Your task to perform on an android device: Search for "corsair k70" on bestbuy, select the first entry, add it to the cart, then select checkout. Image 0: 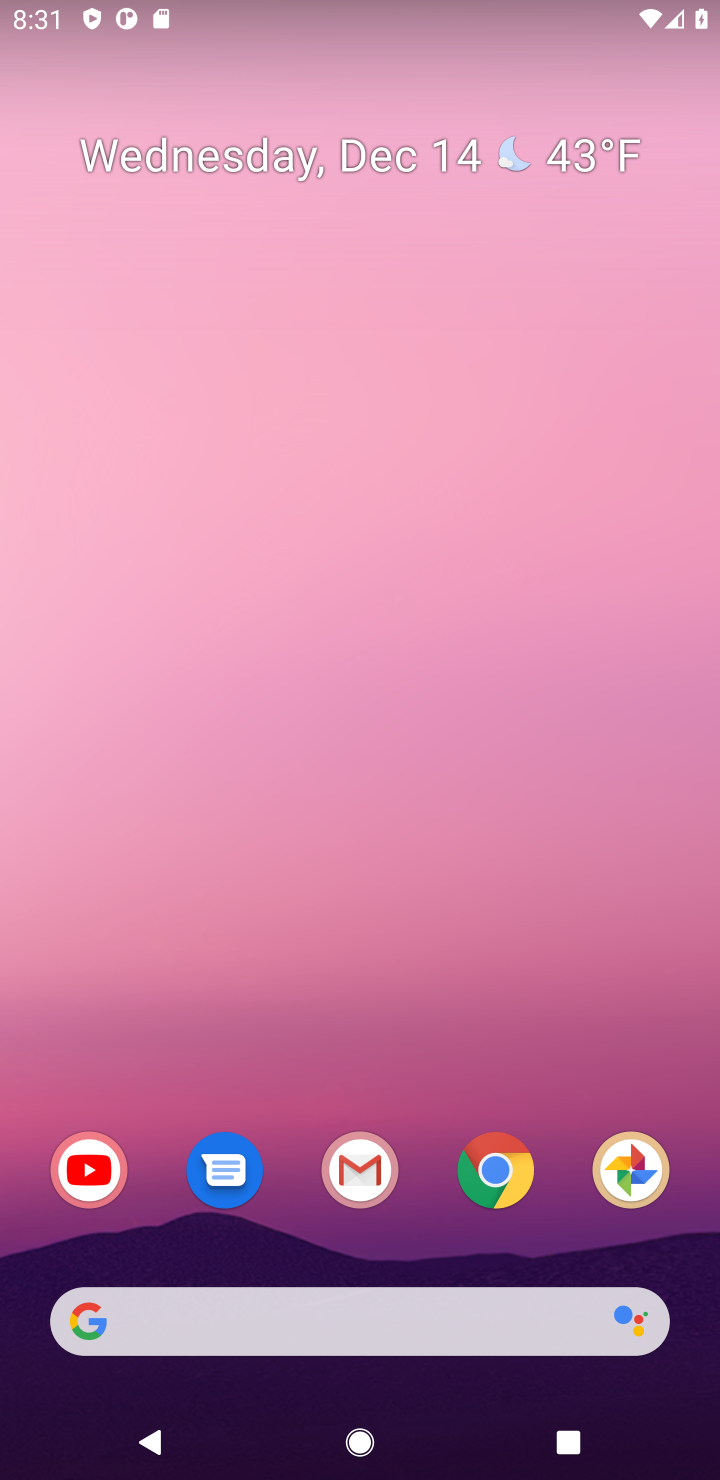
Step 0: click (493, 1185)
Your task to perform on an android device: Search for "corsair k70" on bestbuy, select the first entry, add it to the cart, then select checkout. Image 1: 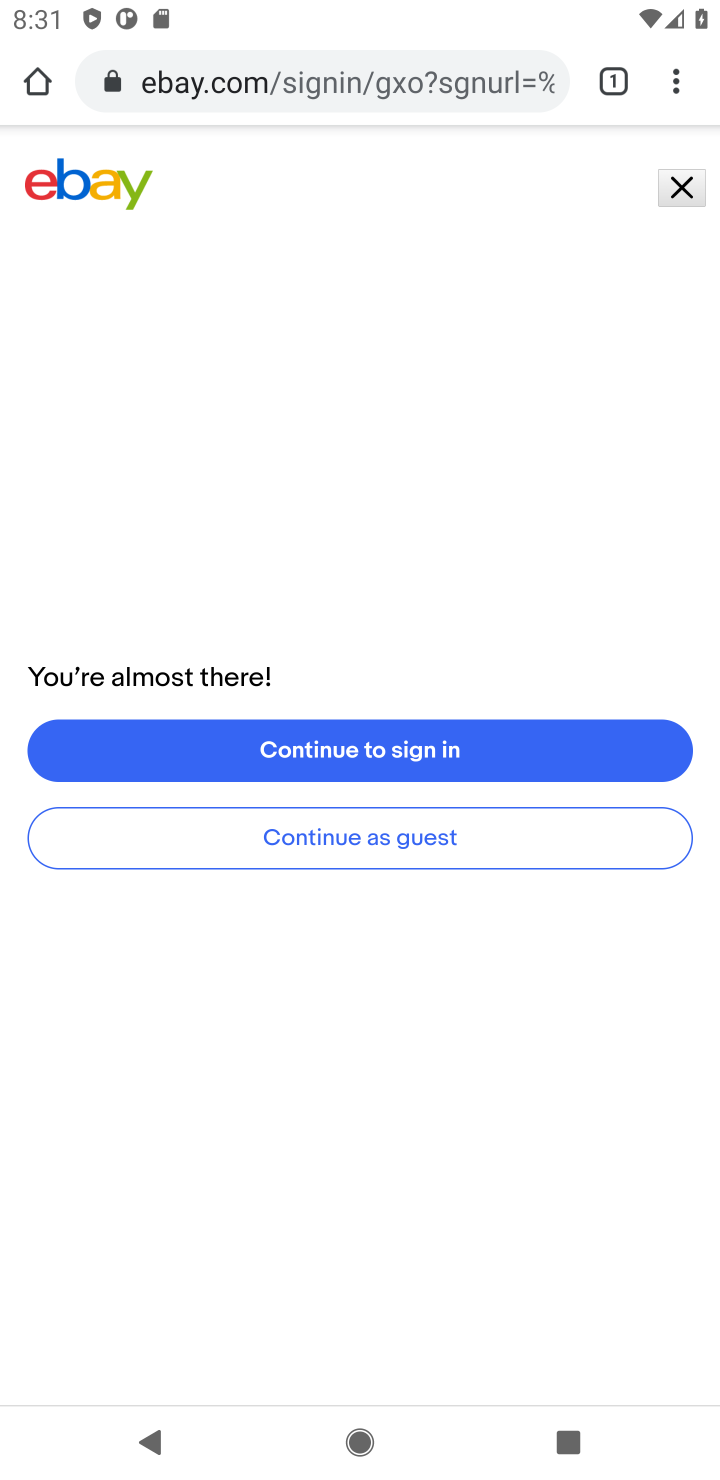
Step 1: click (384, 74)
Your task to perform on an android device: Search for "corsair k70" on bestbuy, select the first entry, add it to the cart, then select checkout. Image 2: 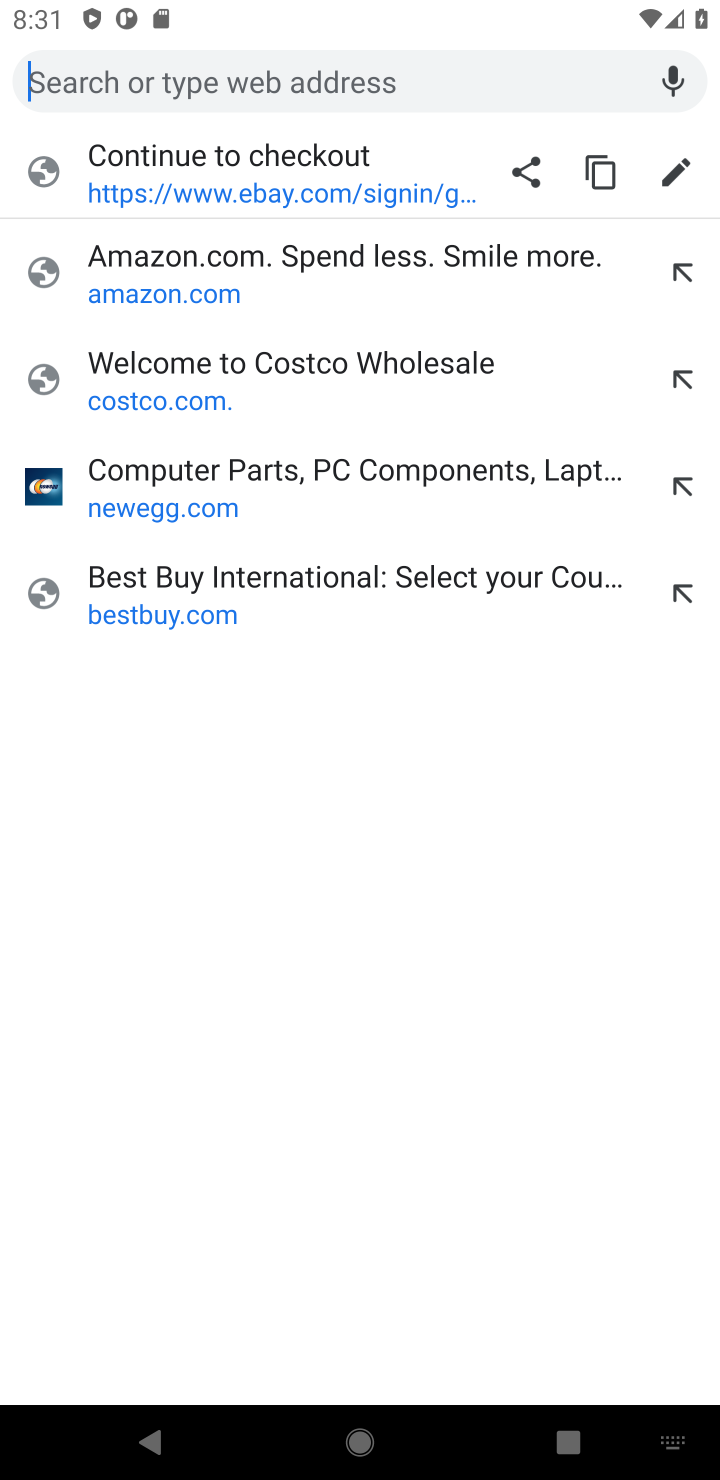
Step 2: click (193, 606)
Your task to perform on an android device: Search for "corsair k70" on bestbuy, select the first entry, add it to the cart, then select checkout. Image 3: 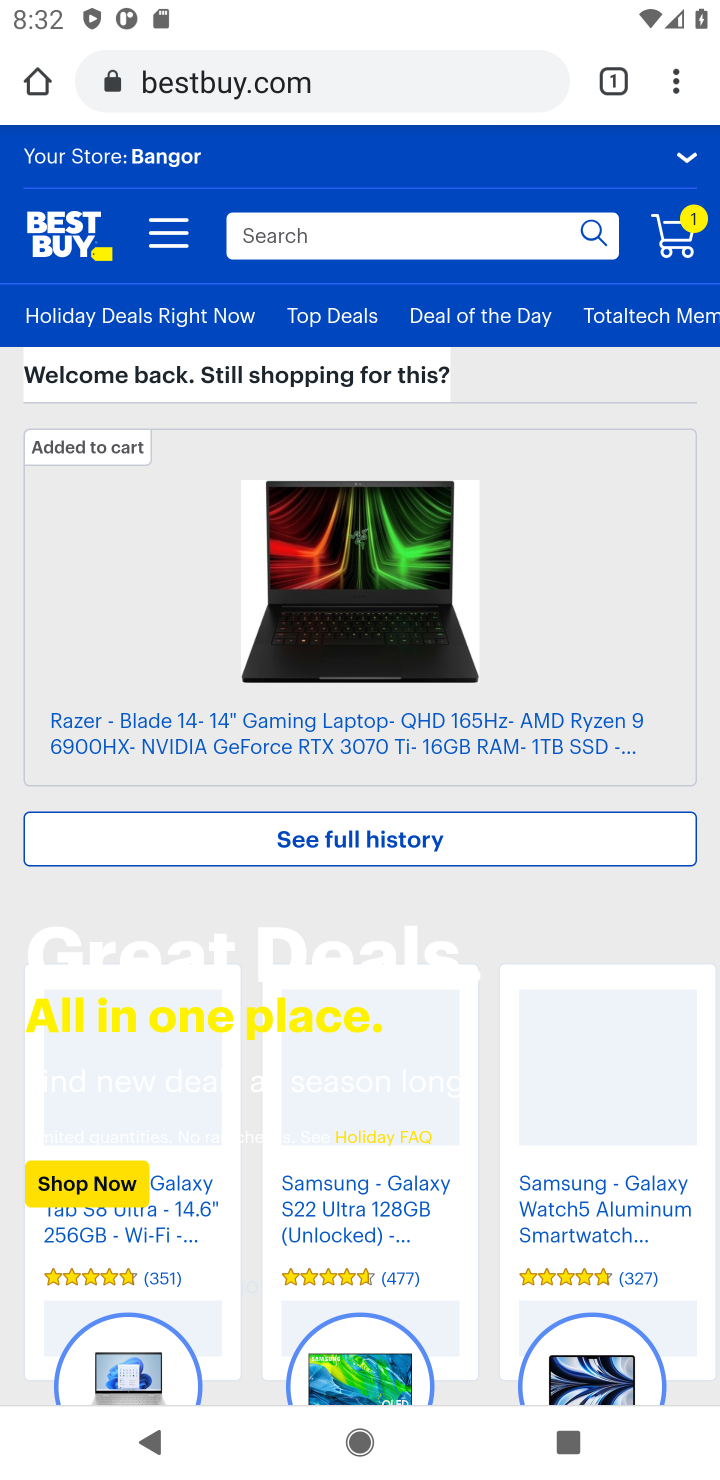
Step 3: click (389, 240)
Your task to perform on an android device: Search for "corsair k70" on bestbuy, select the first entry, add it to the cart, then select checkout. Image 4: 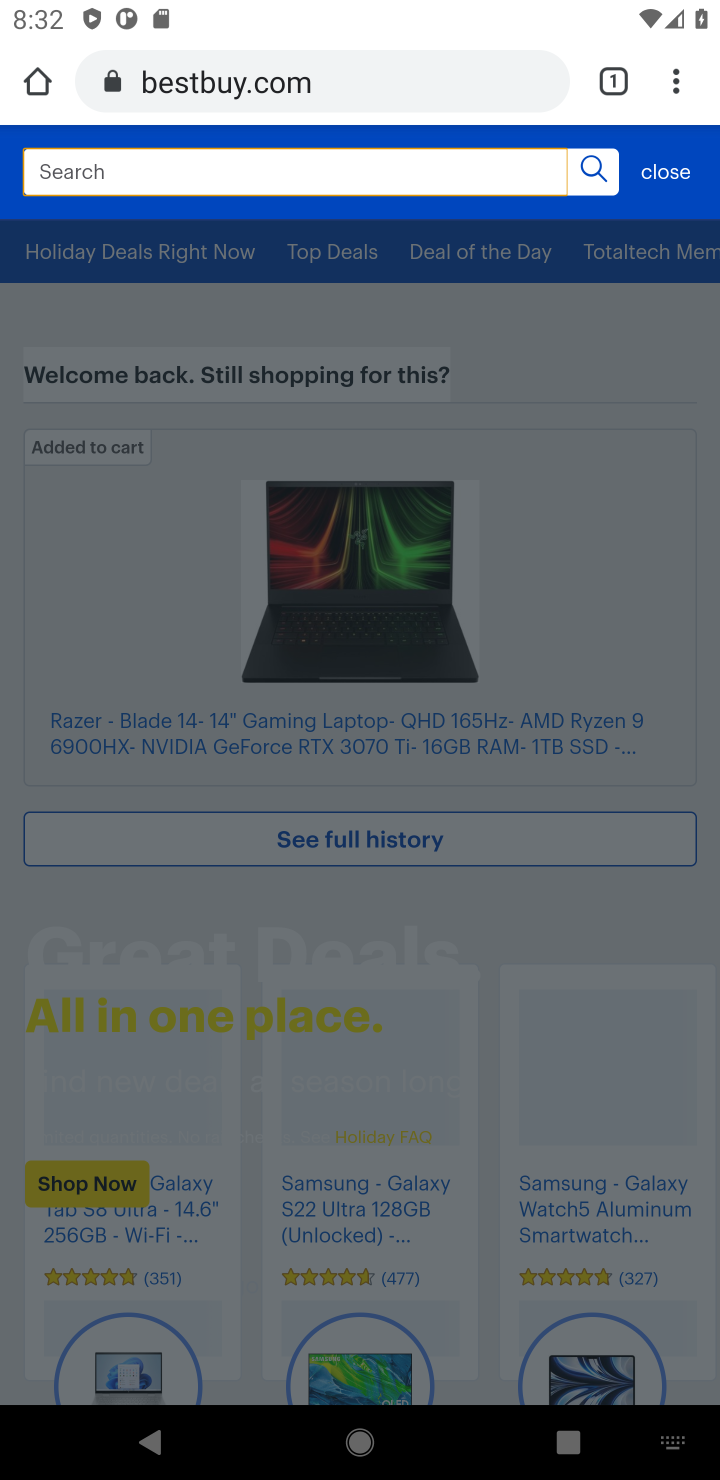
Step 4: type "corsair k70"
Your task to perform on an android device: Search for "corsair k70" on bestbuy, select the first entry, add it to the cart, then select checkout. Image 5: 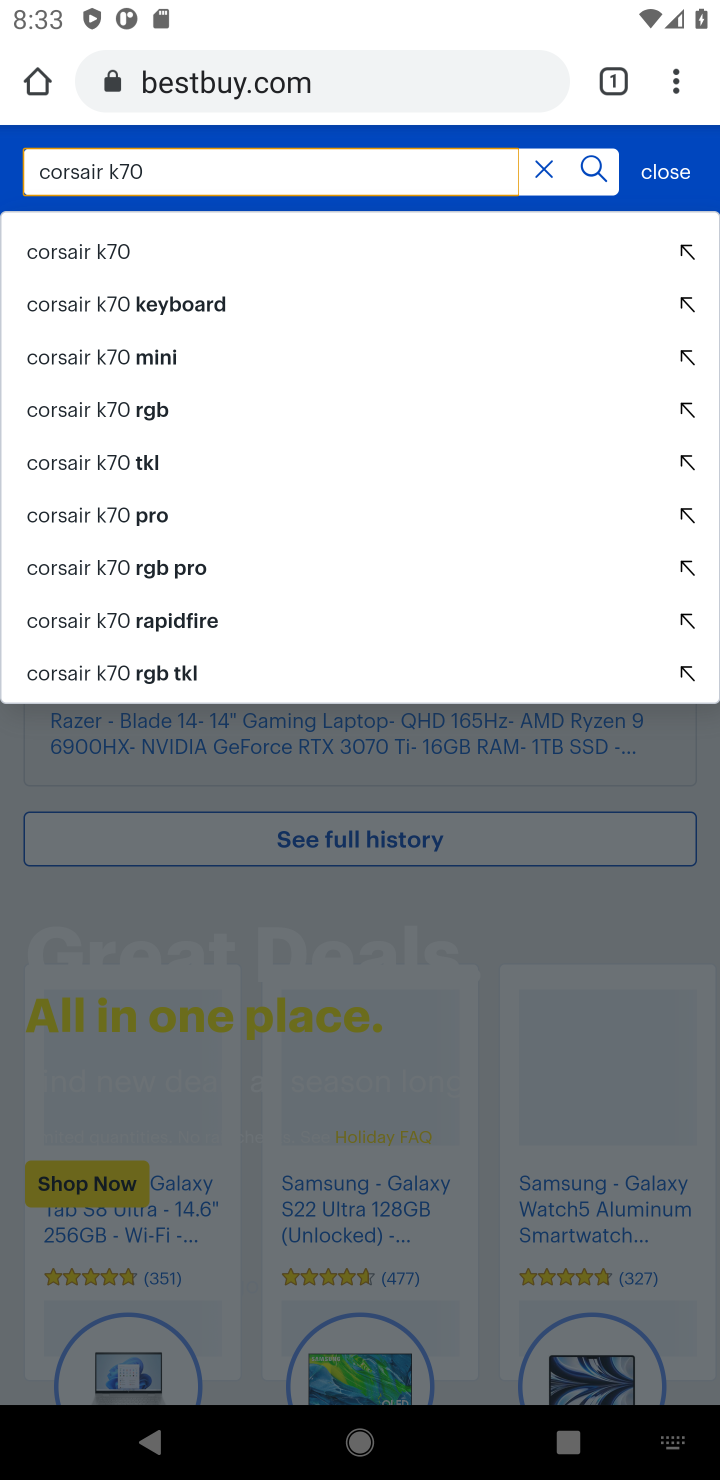
Step 5: click (95, 256)
Your task to perform on an android device: Search for "corsair k70" on bestbuy, select the first entry, add it to the cart, then select checkout. Image 6: 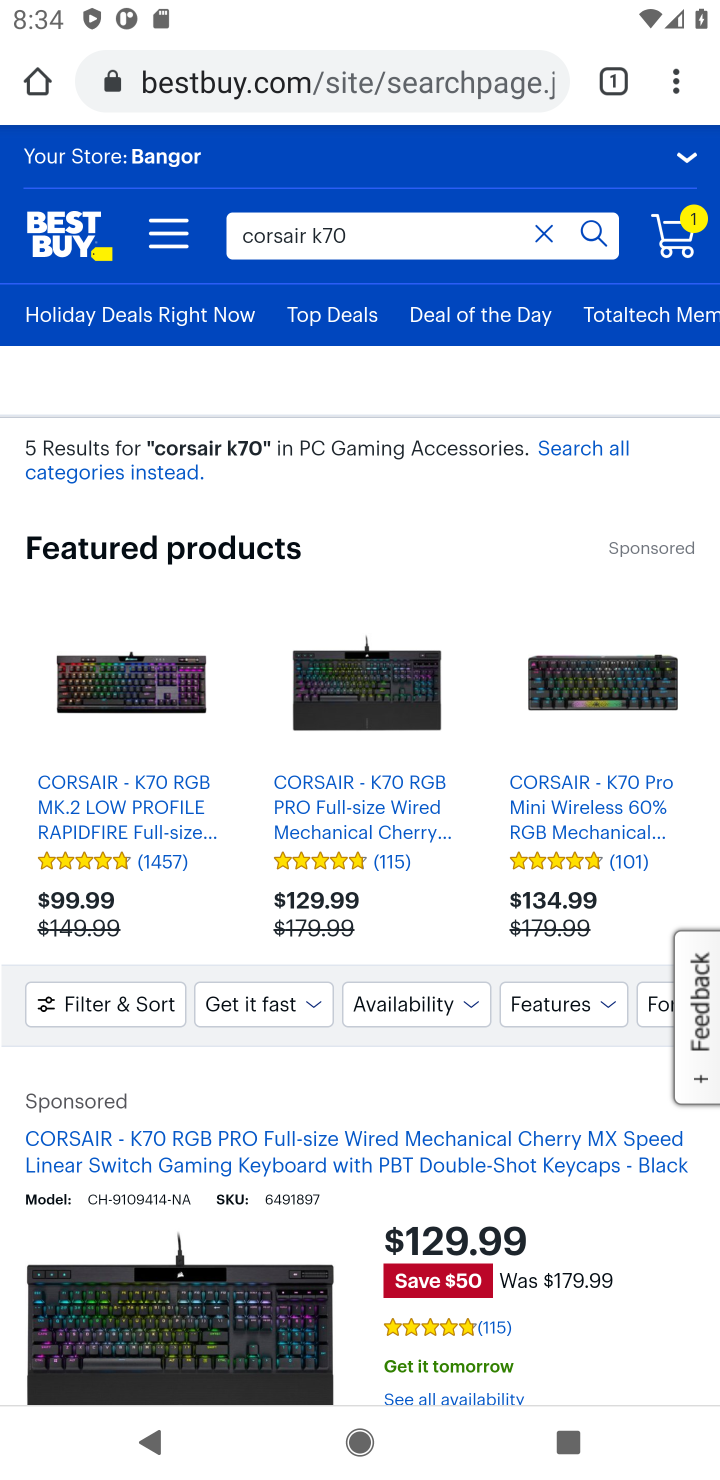
Step 6: click (592, 1271)
Your task to perform on an android device: Search for "corsair k70" on bestbuy, select the first entry, add it to the cart, then select checkout. Image 7: 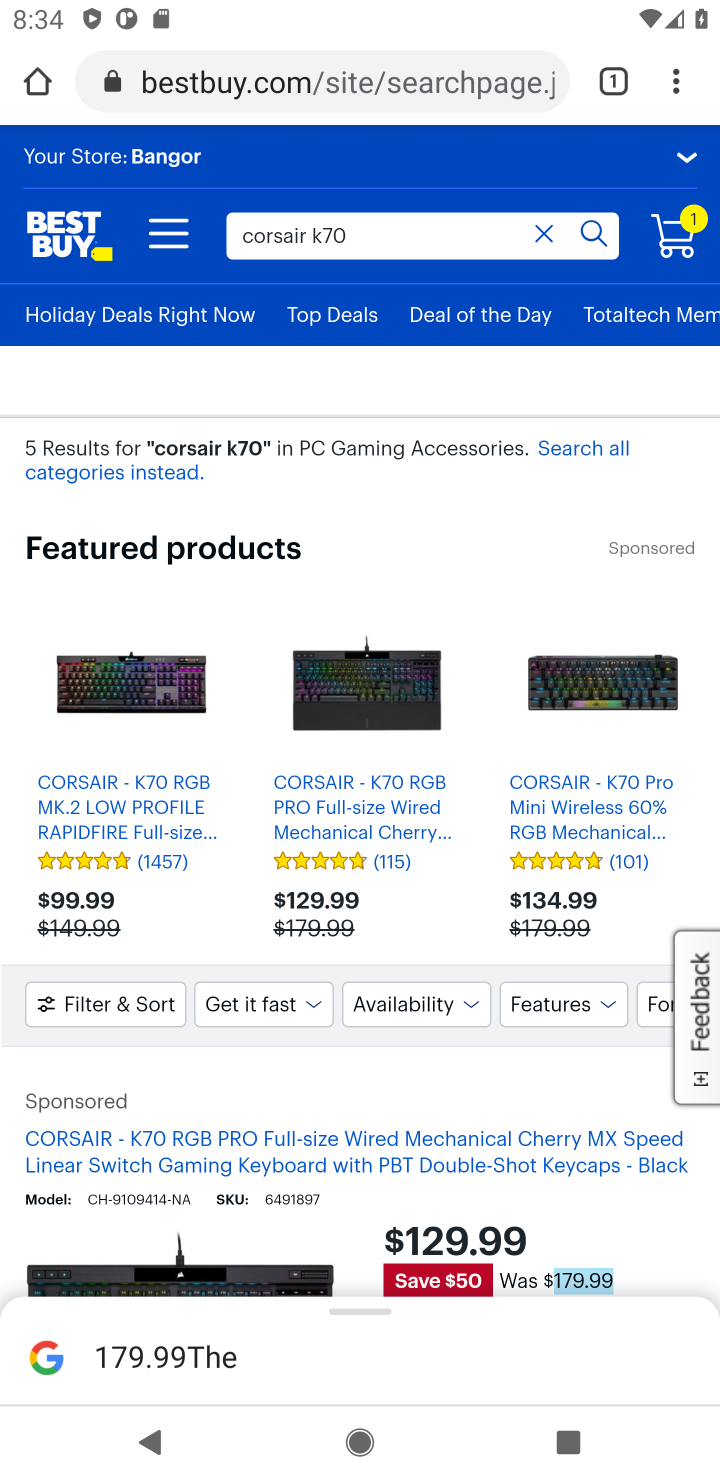
Step 7: click (592, 1228)
Your task to perform on an android device: Search for "corsair k70" on bestbuy, select the first entry, add it to the cart, then select checkout. Image 8: 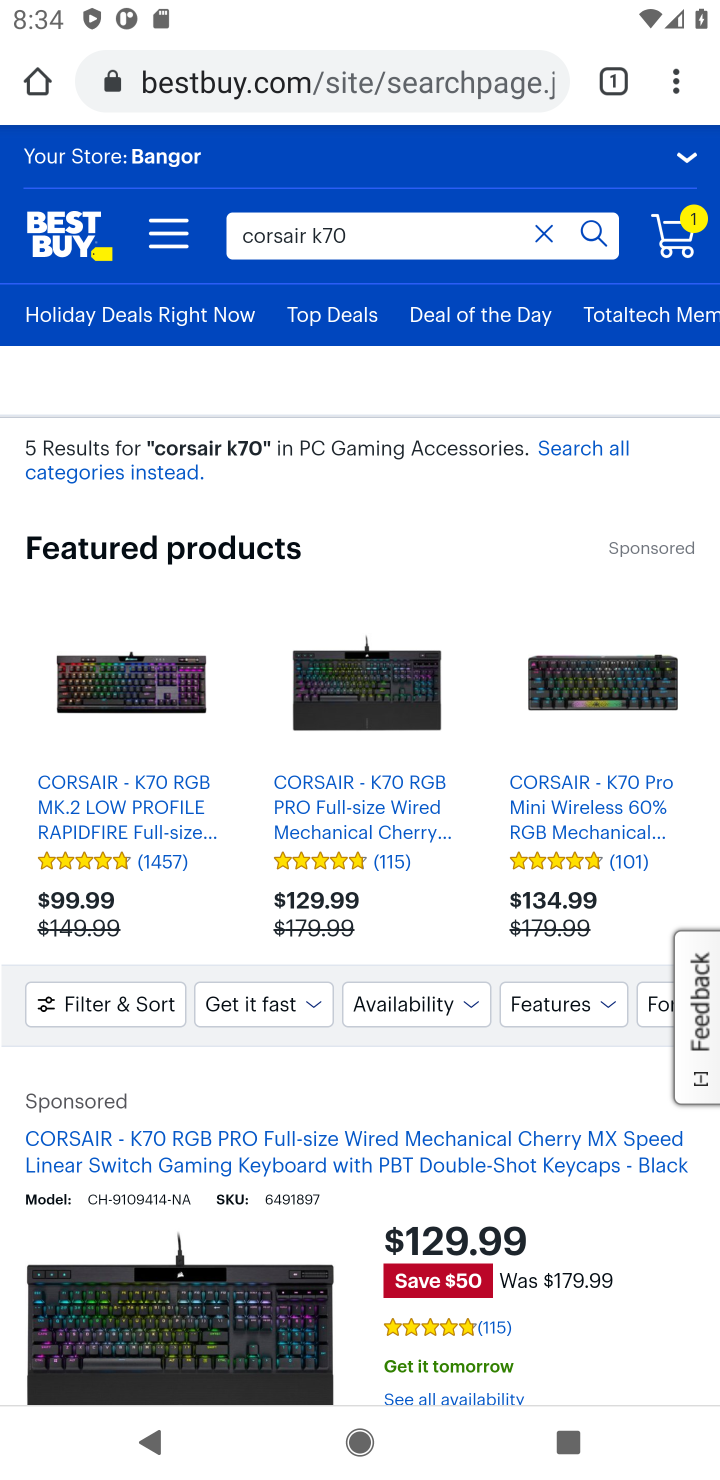
Step 8: drag from (564, 1339) to (566, 830)
Your task to perform on an android device: Search for "corsair k70" on bestbuy, select the first entry, add it to the cart, then select checkout. Image 9: 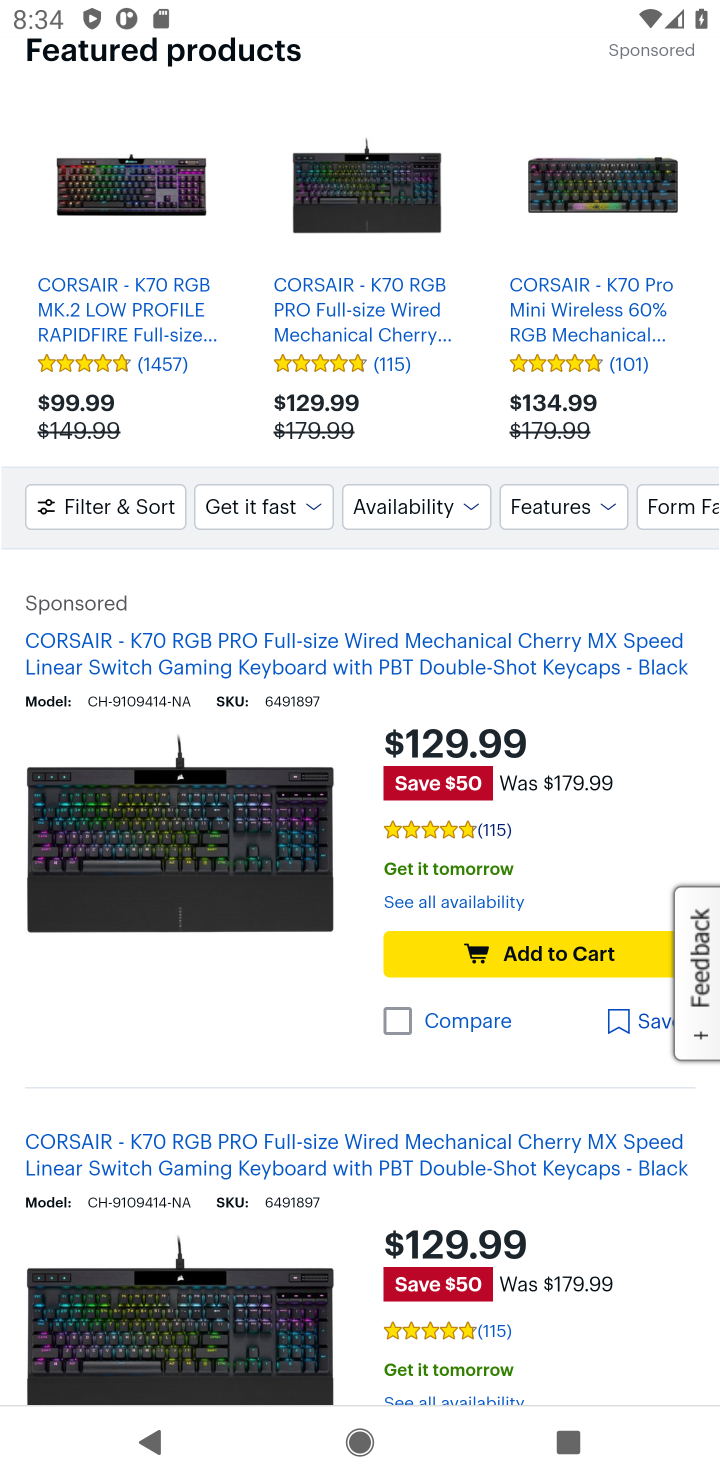
Step 9: click (547, 941)
Your task to perform on an android device: Search for "corsair k70" on bestbuy, select the first entry, add it to the cart, then select checkout. Image 10: 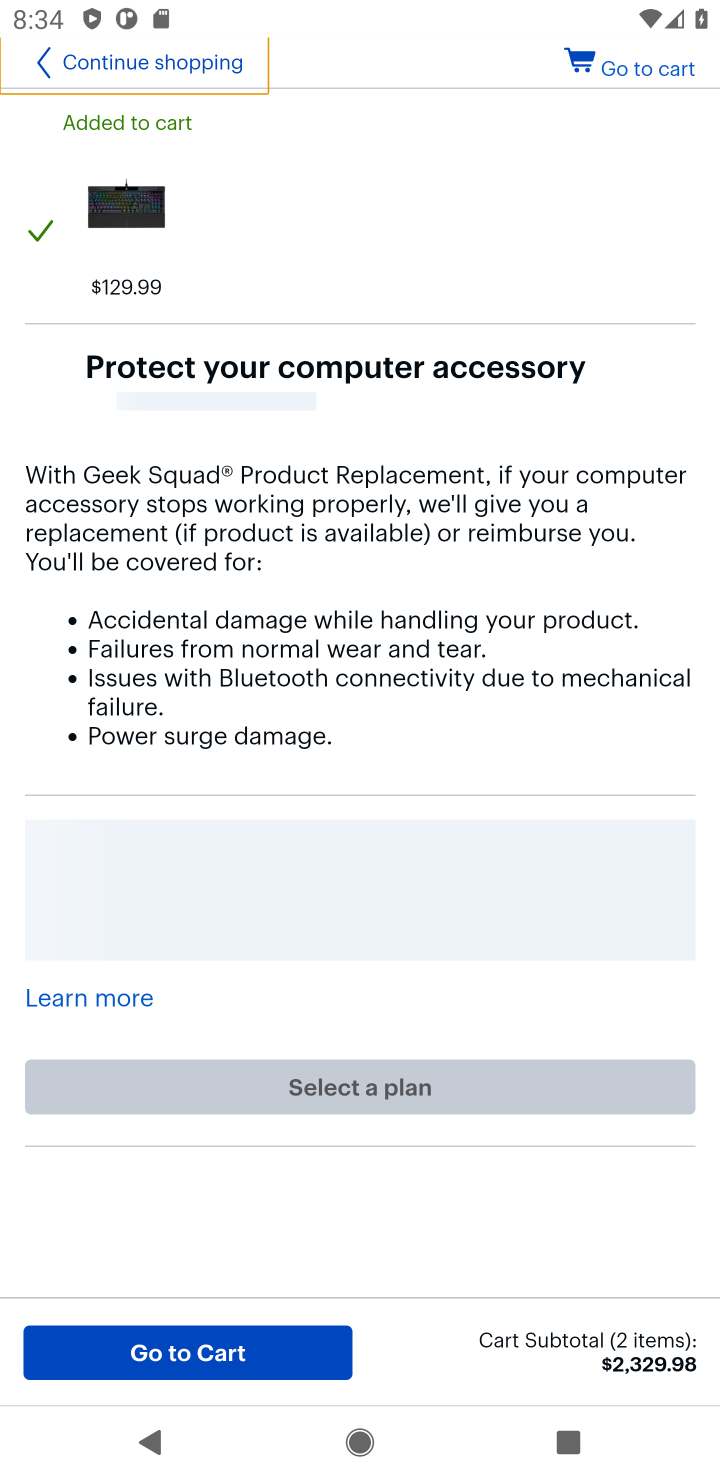
Step 10: click (188, 1344)
Your task to perform on an android device: Search for "corsair k70" on bestbuy, select the first entry, add it to the cart, then select checkout. Image 11: 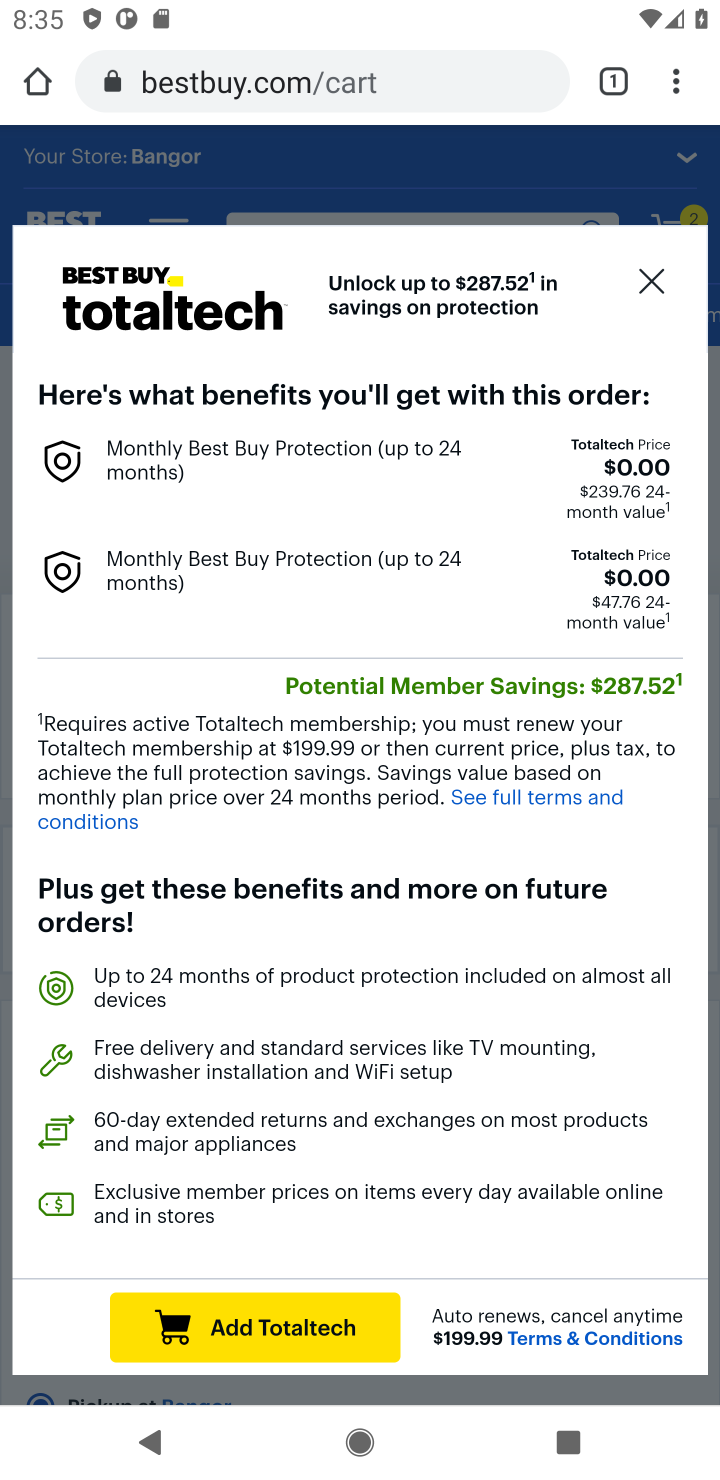
Step 11: click (647, 293)
Your task to perform on an android device: Search for "corsair k70" on bestbuy, select the first entry, add it to the cart, then select checkout. Image 12: 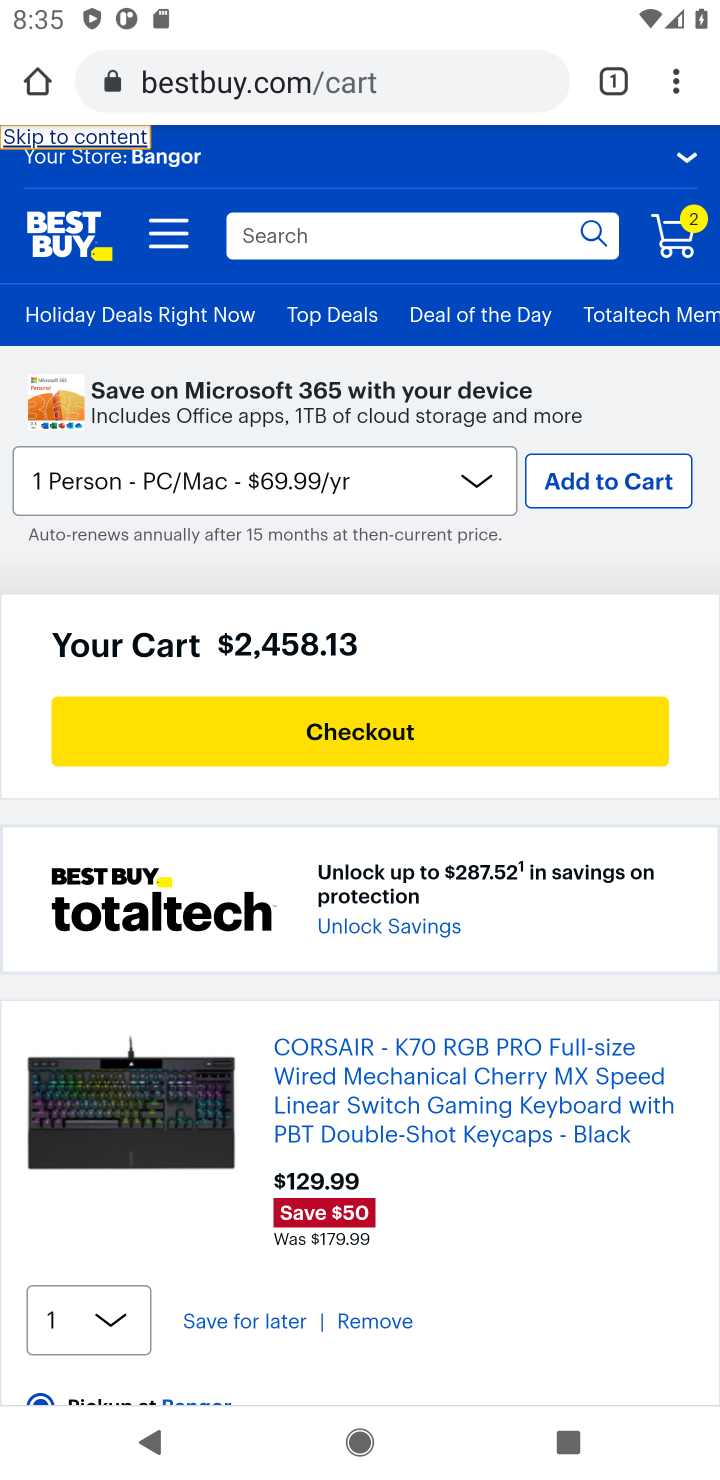
Step 12: click (329, 732)
Your task to perform on an android device: Search for "corsair k70" on bestbuy, select the first entry, add it to the cart, then select checkout. Image 13: 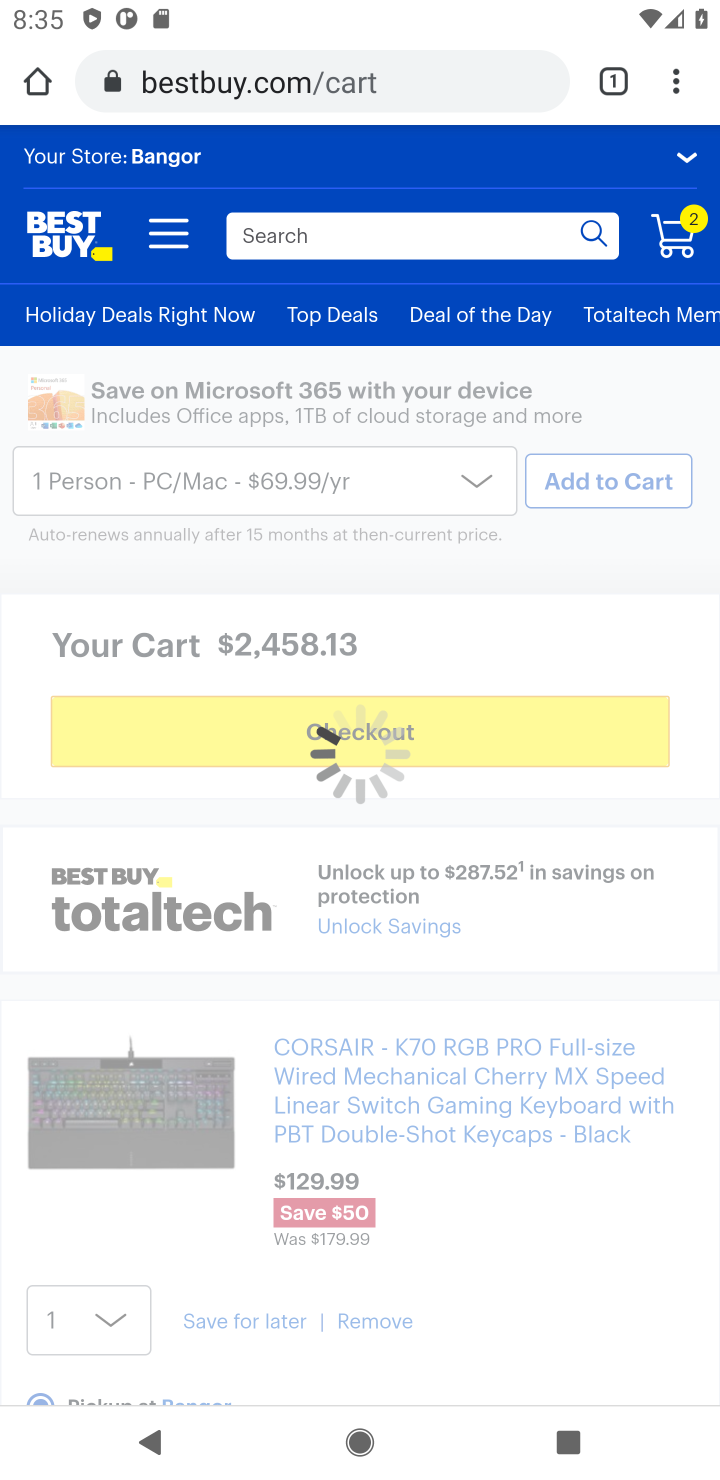
Step 13: task complete